Your task to perform on an android device: What's the weather going to be this weekend? Image 0: 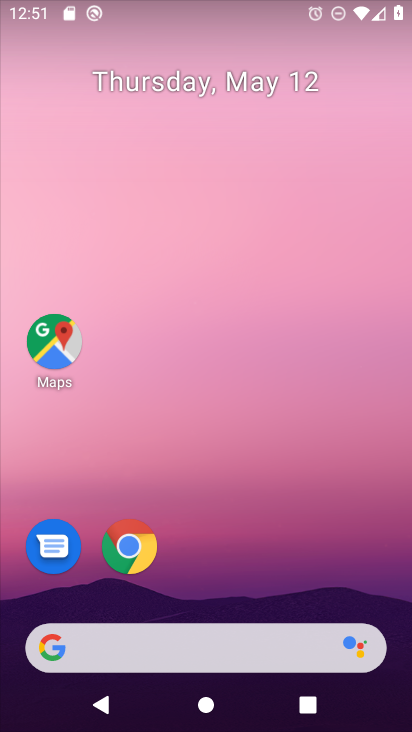
Step 0: drag from (402, 645) to (237, 27)
Your task to perform on an android device: What's the weather going to be this weekend? Image 1: 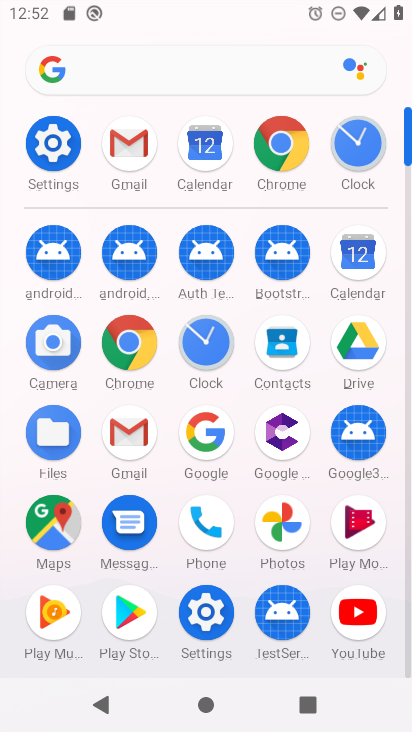
Step 1: press home button
Your task to perform on an android device: What's the weather going to be this weekend? Image 2: 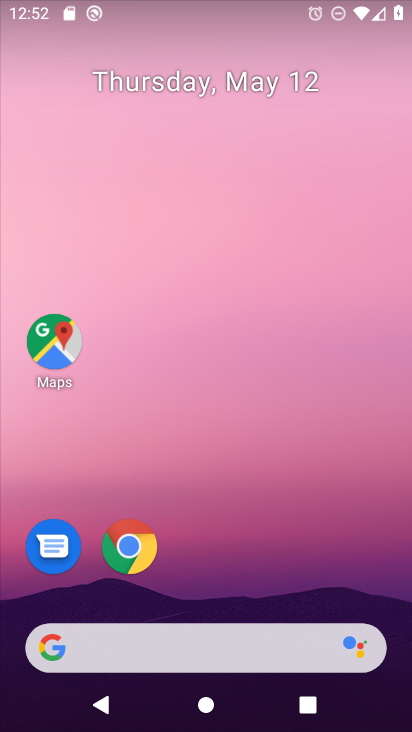
Step 2: click (153, 632)
Your task to perform on an android device: What's the weather going to be this weekend? Image 3: 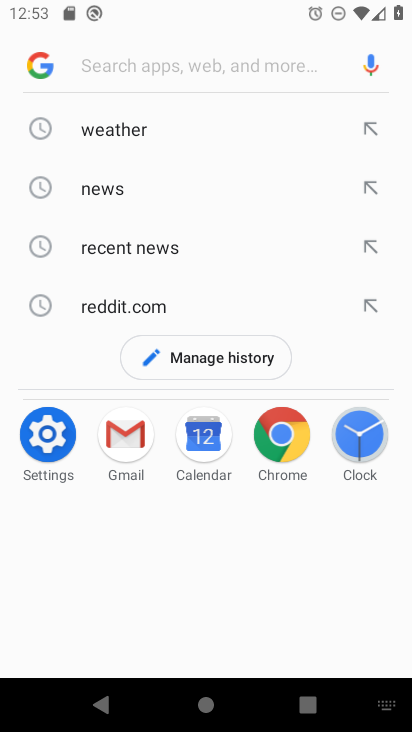
Step 3: click (367, 136)
Your task to perform on an android device: What's the weather going to be this weekend? Image 4: 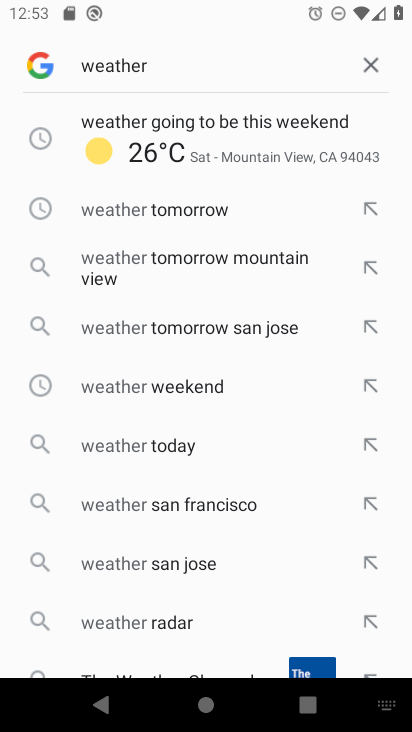
Step 4: click (239, 147)
Your task to perform on an android device: What's the weather going to be this weekend? Image 5: 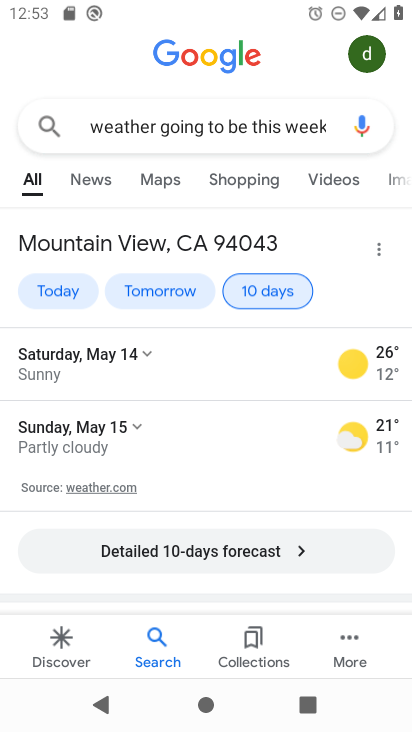
Step 5: task complete